Your task to perform on an android device: turn notification dots off Image 0: 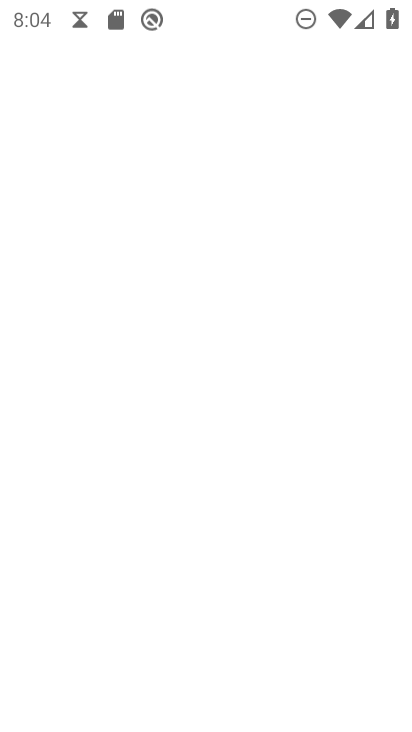
Step 0: press home button
Your task to perform on an android device: turn notification dots off Image 1: 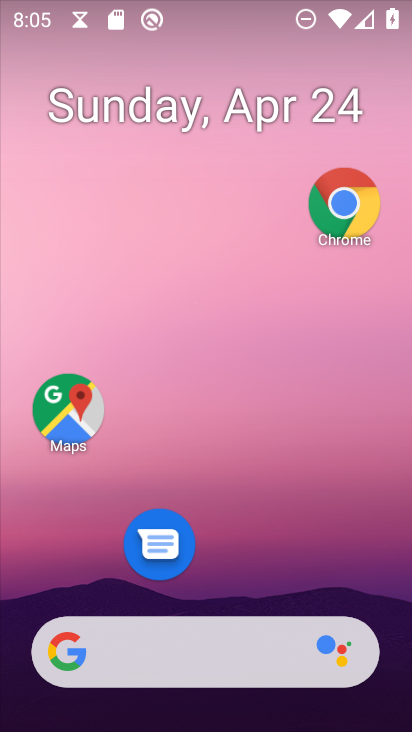
Step 1: drag from (202, 615) to (351, 13)
Your task to perform on an android device: turn notification dots off Image 2: 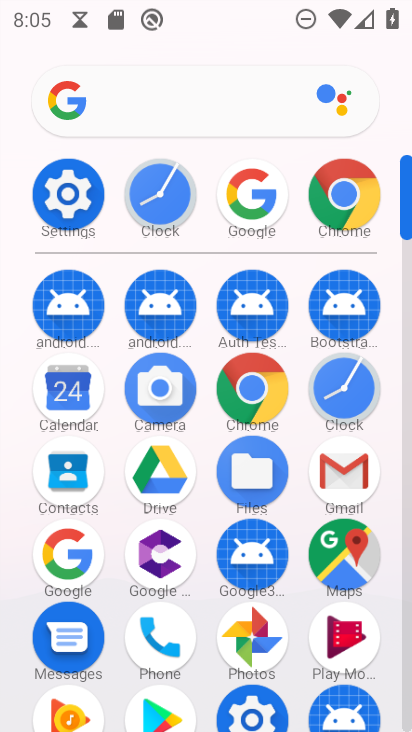
Step 2: click (77, 210)
Your task to perform on an android device: turn notification dots off Image 3: 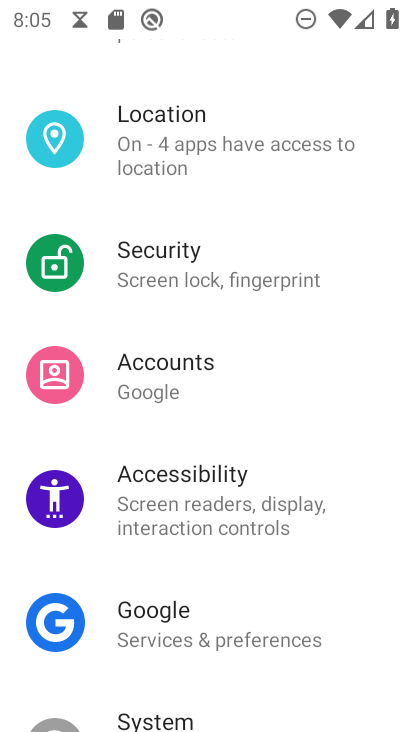
Step 3: drag from (209, 176) to (195, 575)
Your task to perform on an android device: turn notification dots off Image 4: 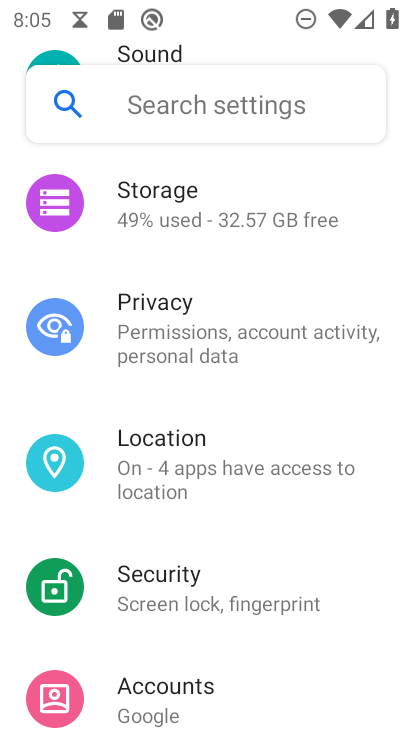
Step 4: drag from (297, 171) to (262, 640)
Your task to perform on an android device: turn notification dots off Image 5: 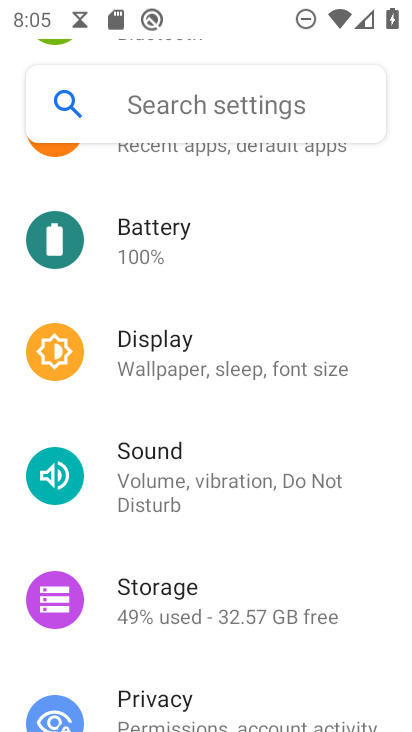
Step 5: drag from (265, 303) to (218, 627)
Your task to perform on an android device: turn notification dots off Image 6: 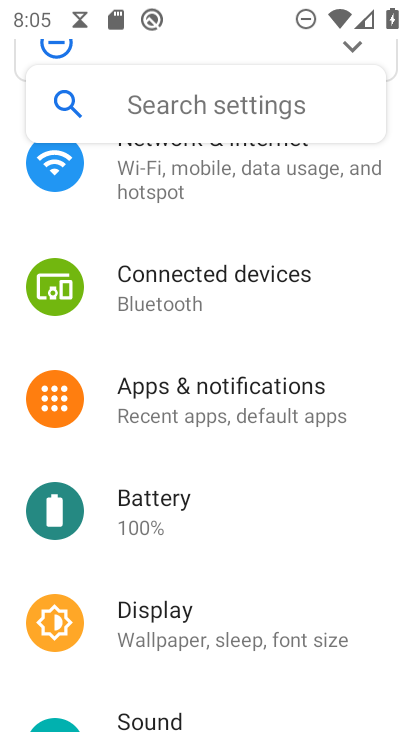
Step 6: drag from (259, 232) to (241, 590)
Your task to perform on an android device: turn notification dots off Image 7: 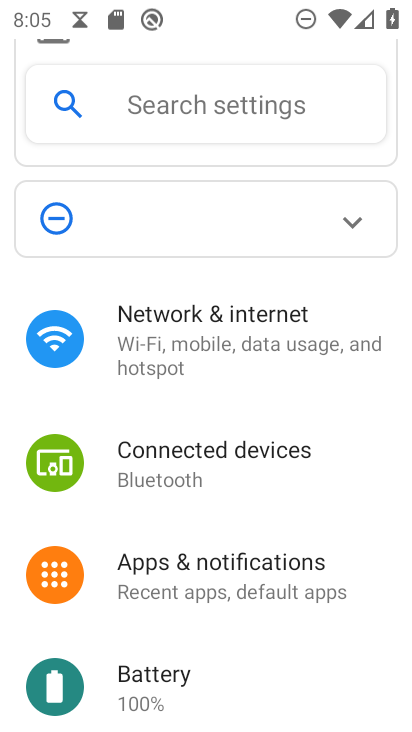
Step 7: drag from (220, 630) to (256, 481)
Your task to perform on an android device: turn notification dots off Image 8: 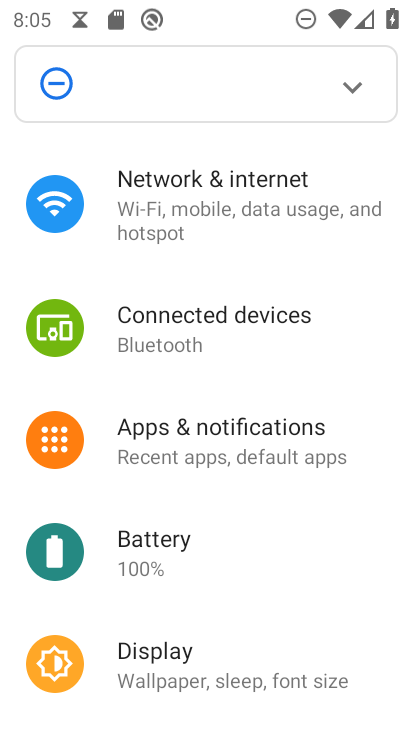
Step 8: click (233, 421)
Your task to perform on an android device: turn notification dots off Image 9: 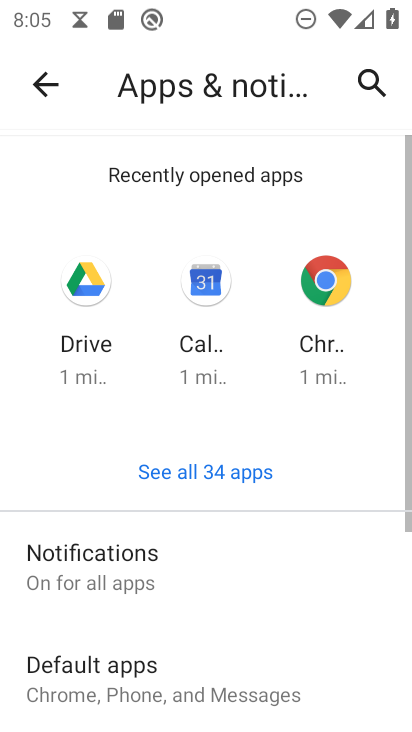
Step 9: click (134, 562)
Your task to perform on an android device: turn notification dots off Image 10: 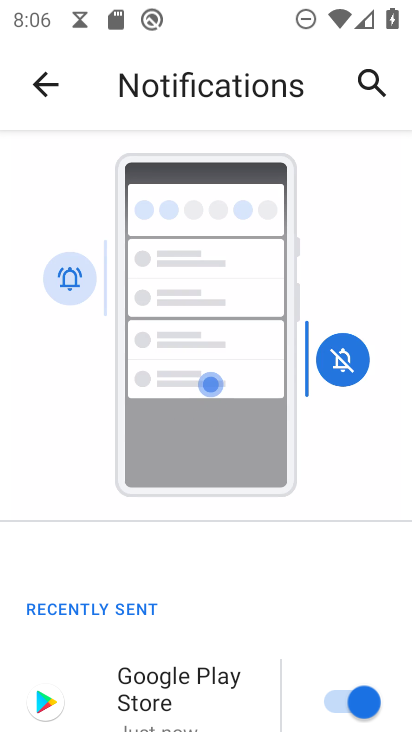
Step 10: drag from (172, 625) to (381, 137)
Your task to perform on an android device: turn notification dots off Image 11: 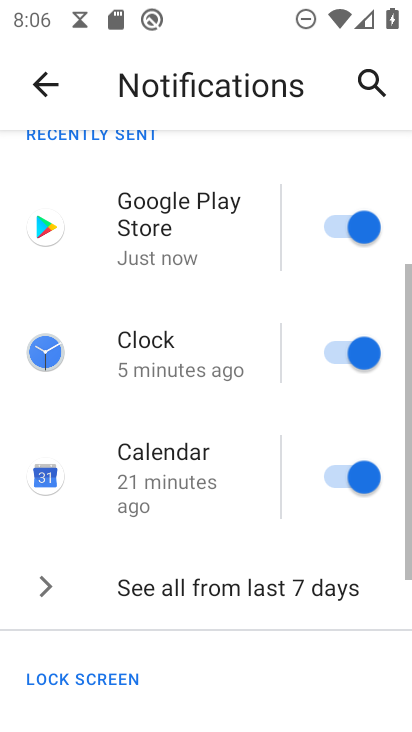
Step 11: drag from (172, 533) to (360, 164)
Your task to perform on an android device: turn notification dots off Image 12: 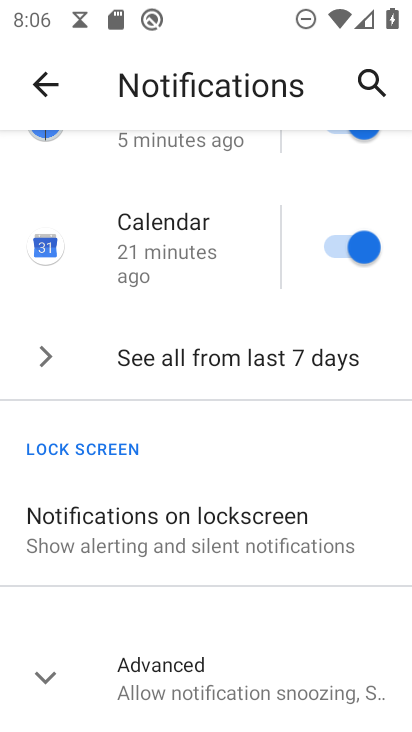
Step 12: click (129, 665)
Your task to perform on an android device: turn notification dots off Image 13: 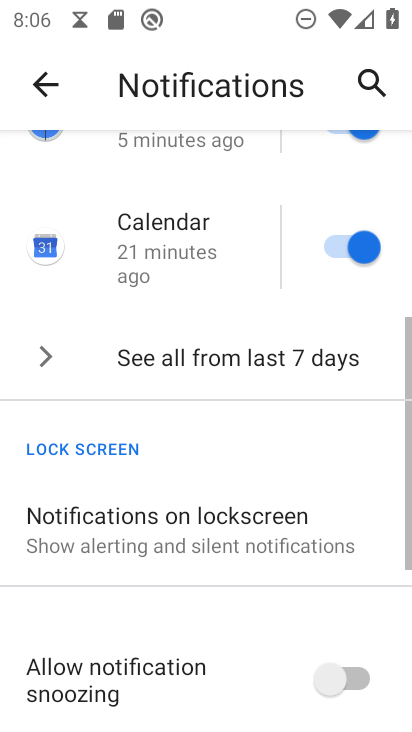
Step 13: drag from (137, 685) to (320, 152)
Your task to perform on an android device: turn notification dots off Image 14: 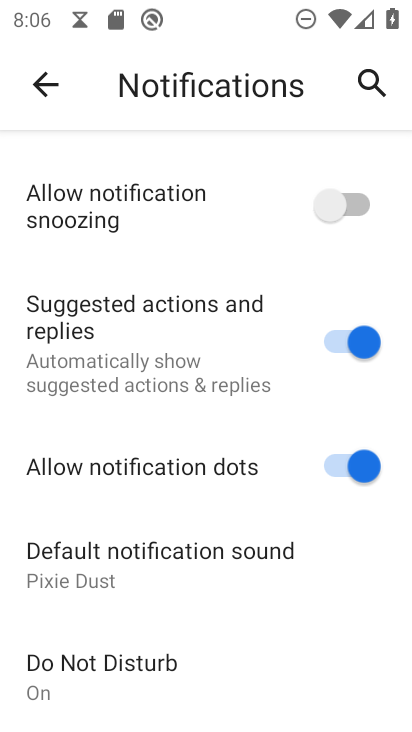
Step 14: click (337, 468)
Your task to perform on an android device: turn notification dots off Image 15: 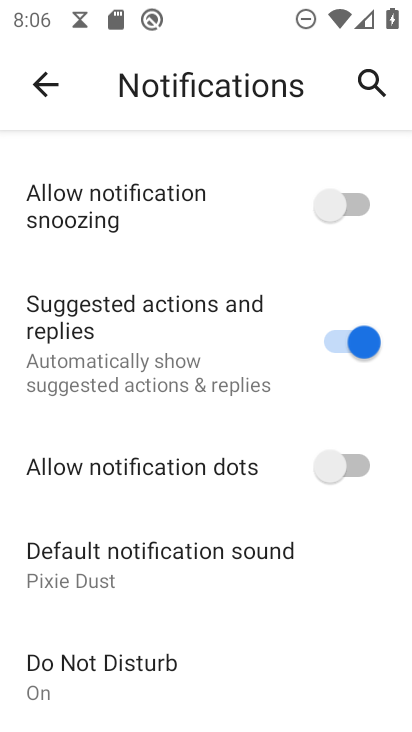
Step 15: task complete